Your task to perform on an android device: Go to Android settings Image 0: 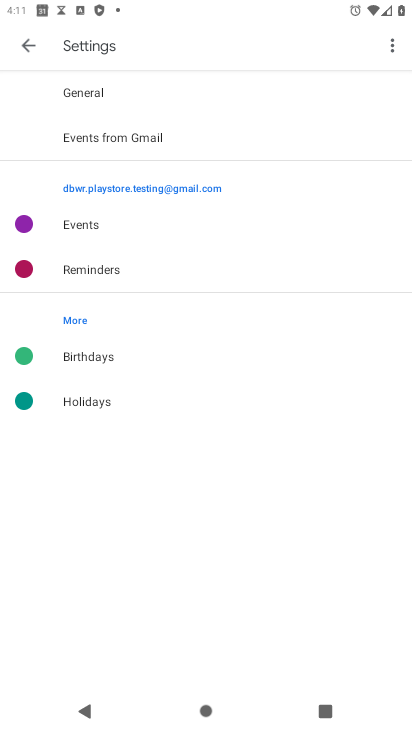
Step 0: press home button
Your task to perform on an android device: Go to Android settings Image 1: 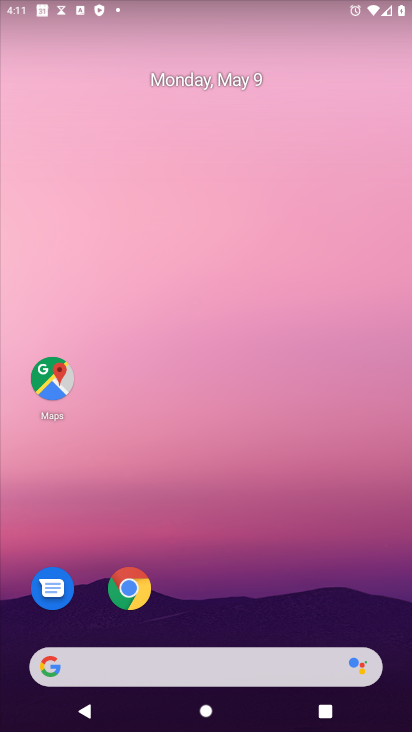
Step 1: drag from (202, 129) to (175, 38)
Your task to perform on an android device: Go to Android settings Image 2: 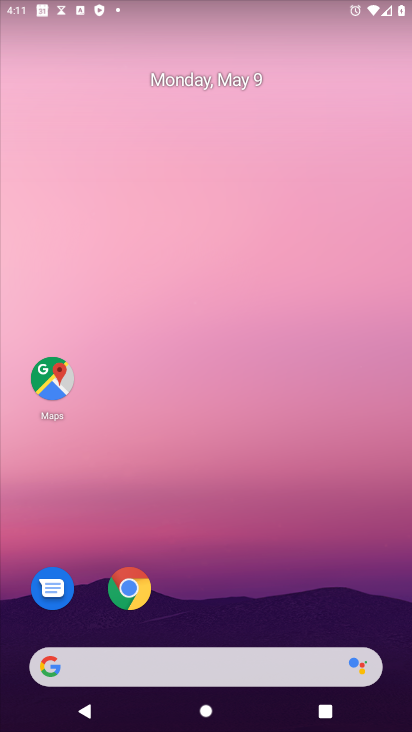
Step 2: drag from (224, 541) to (171, 59)
Your task to perform on an android device: Go to Android settings Image 3: 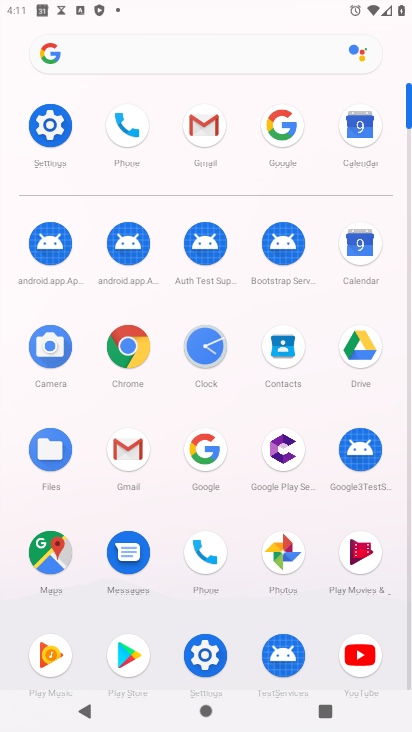
Step 3: click (60, 133)
Your task to perform on an android device: Go to Android settings Image 4: 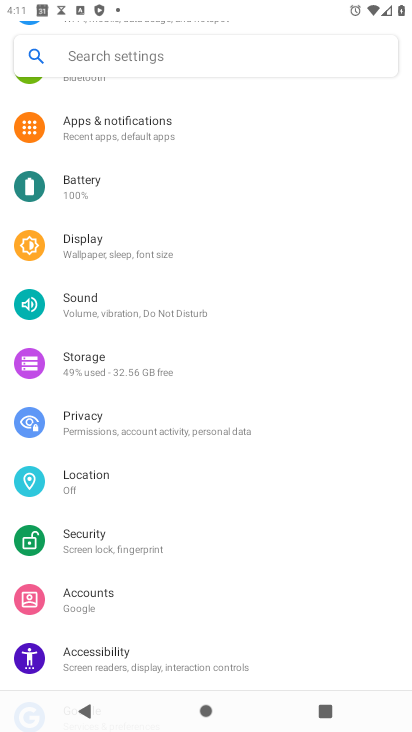
Step 4: drag from (211, 518) to (180, 214)
Your task to perform on an android device: Go to Android settings Image 5: 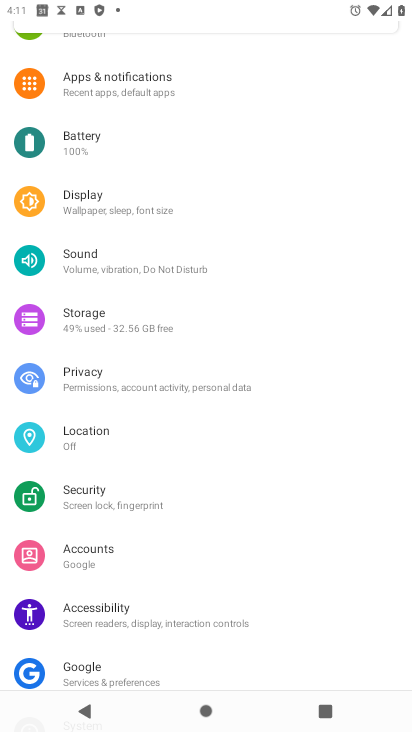
Step 5: drag from (159, 630) to (184, 185)
Your task to perform on an android device: Go to Android settings Image 6: 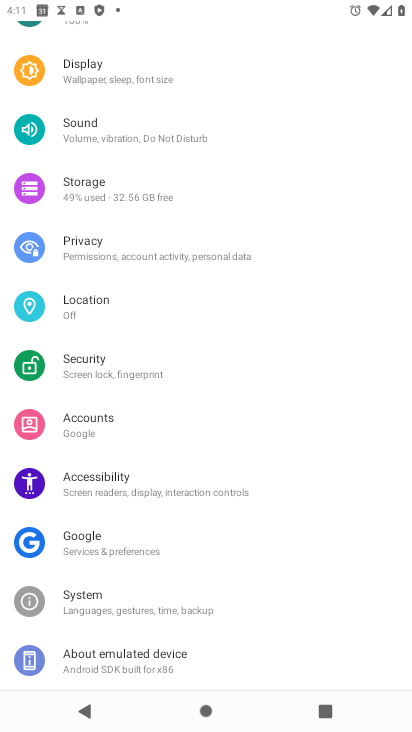
Step 6: click (143, 643)
Your task to perform on an android device: Go to Android settings Image 7: 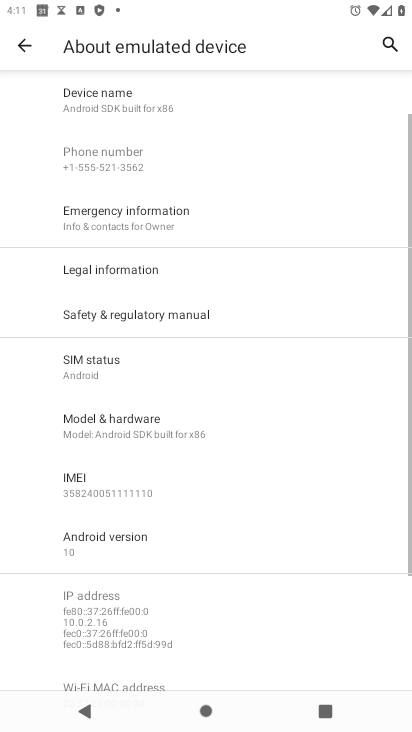
Step 7: click (167, 537)
Your task to perform on an android device: Go to Android settings Image 8: 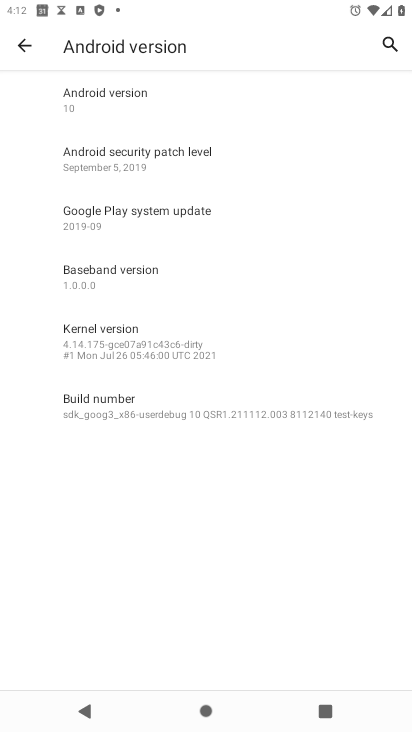
Step 8: task complete